Your task to perform on an android device: Open Chrome and go to settings Image 0: 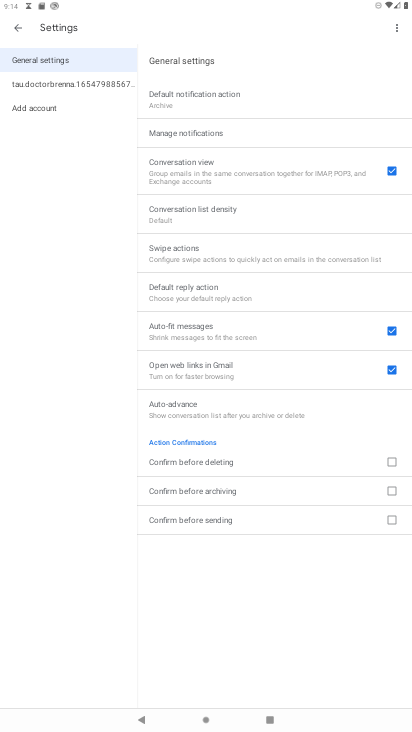
Step 0: press back button
Your task to perform on an android device: Open Chrome and go to settings Image 1: 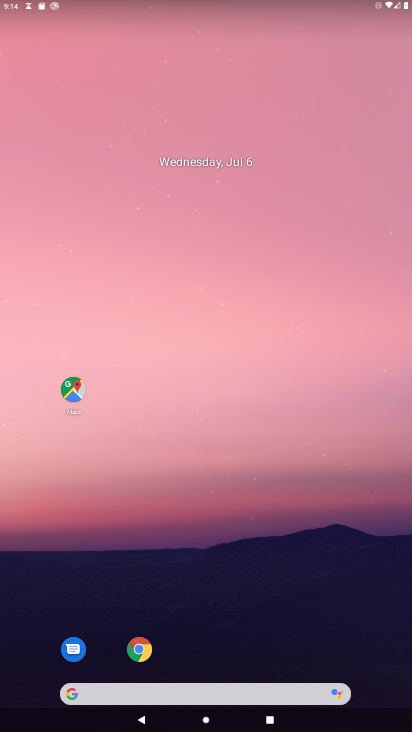
Step 1: drag from (240, 579) to (275, 97)
Your task to perform on an android device: Open Chrome and go to settings Image 2: 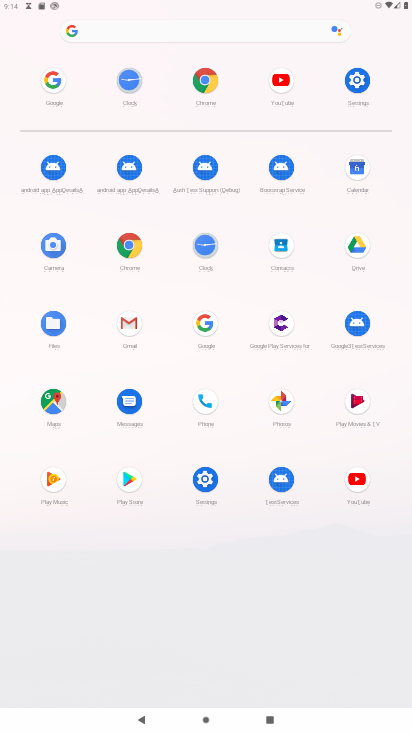
Step 2: click (133, 250)
Your task to perform on an android device: Open Chrome and go to settings Image 3: 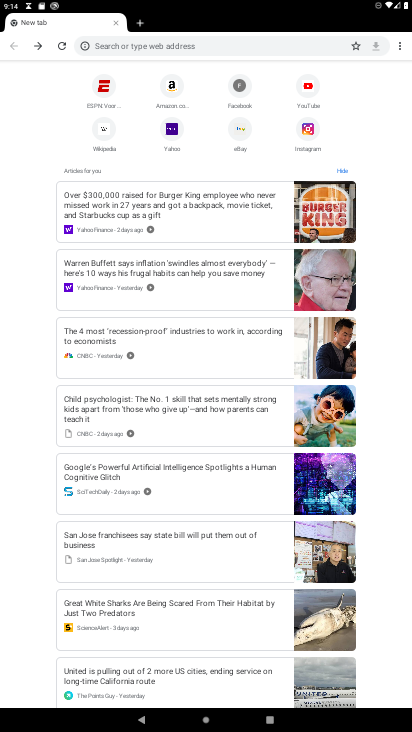
Step 3: drag from (397, 50) to (321, 215)
Your task to perform on an android device: Open Chrome and go to settings Image 4: 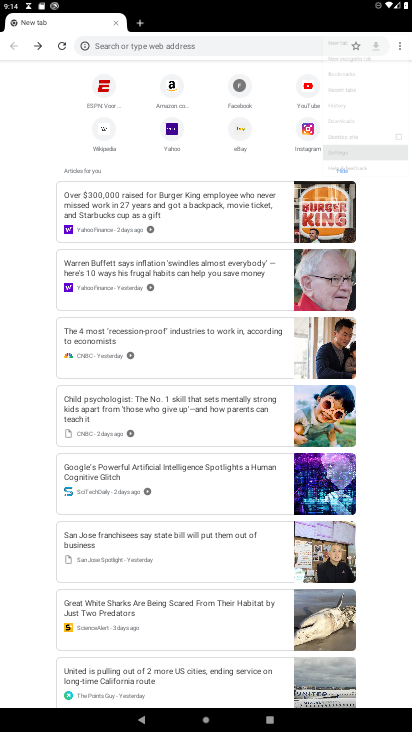
Step 4: click (322, 217)
Your task to perform on an android device: Open Chrome and go to settings Image 5: 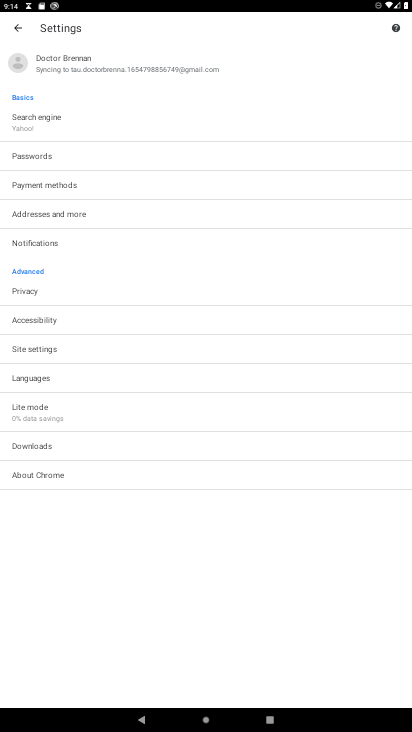
Step 5: click (64, 354)
Your task to perform on an android device: Open Chrome and go to settings Image 6: 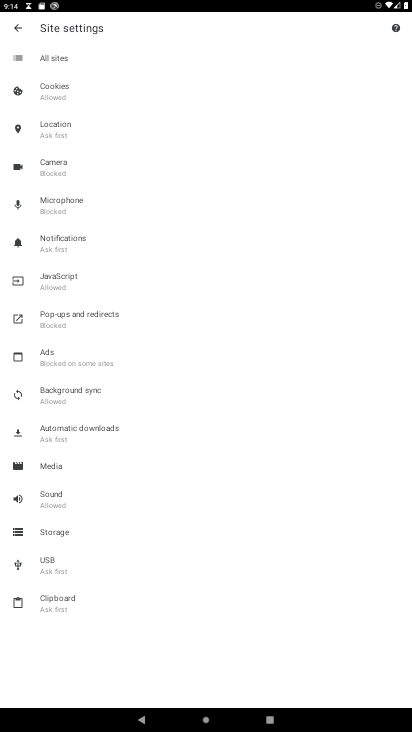
Step 6: task complete